Your task to perform on an android device: Search for the best way to make a resume. Image 0: 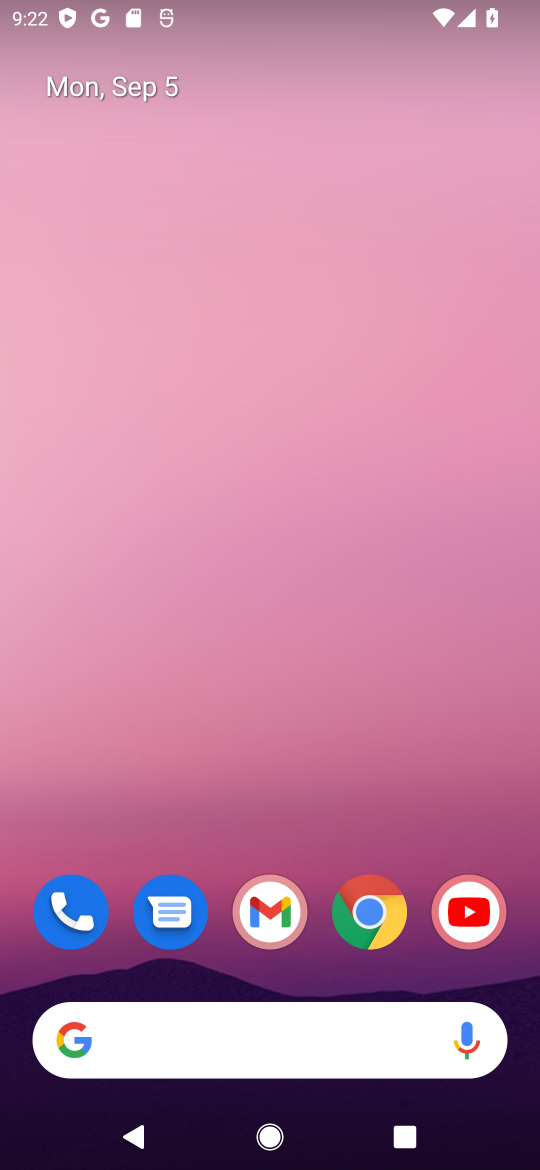
Step 0: click (378, 911)
Your task to perform on an android device: Search for the best way to make a resume. Image 1: 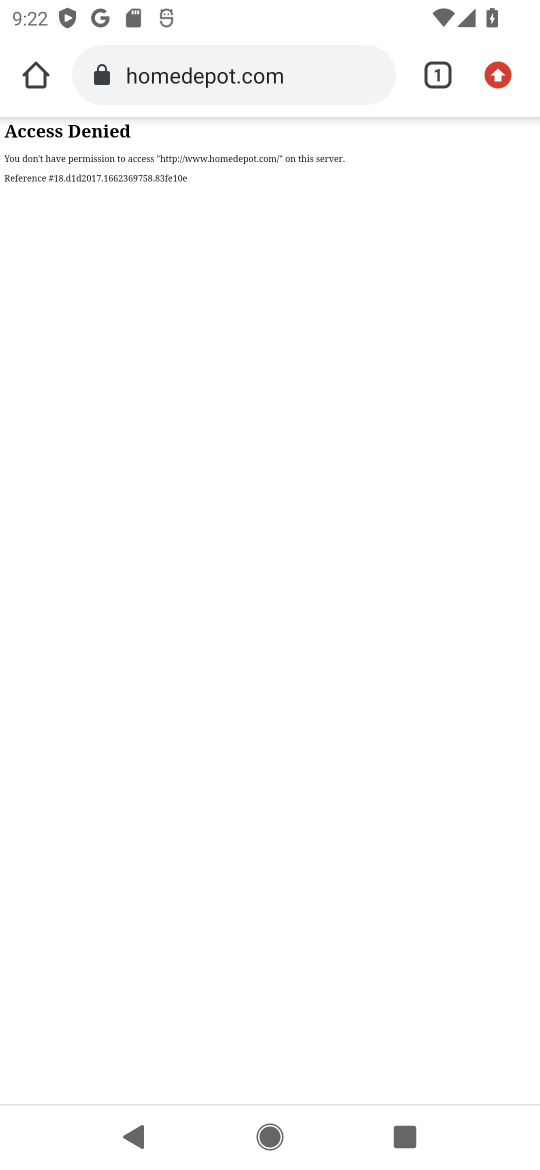
Step 1: click (280, 88)
Your task to perform on an android device: Search for the best way to make a resume. Image 2: 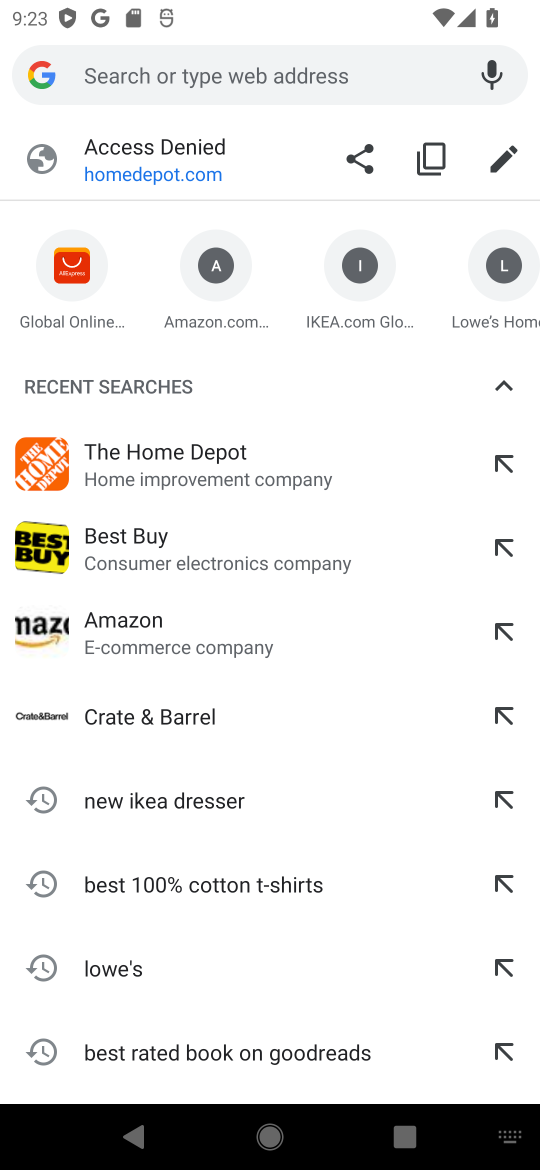
Step 2: type "best way to make resume"
Your task to perform on an android device: Search for the best way to make a resume. Image 3: 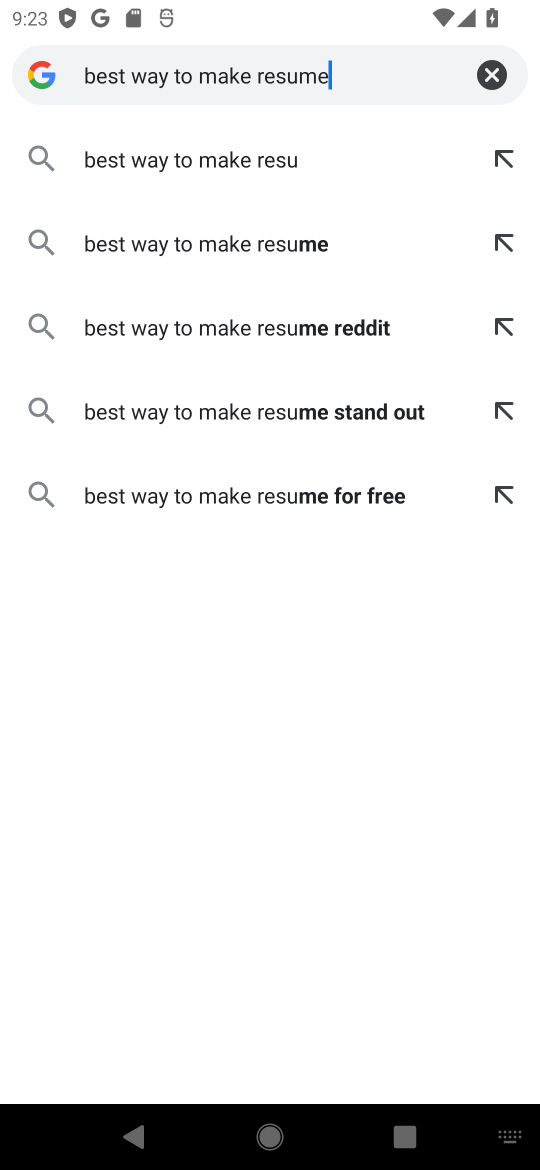
Step 3: press enter
Your task to perform on an android device: Search for the best way to make a resume. Image 4: 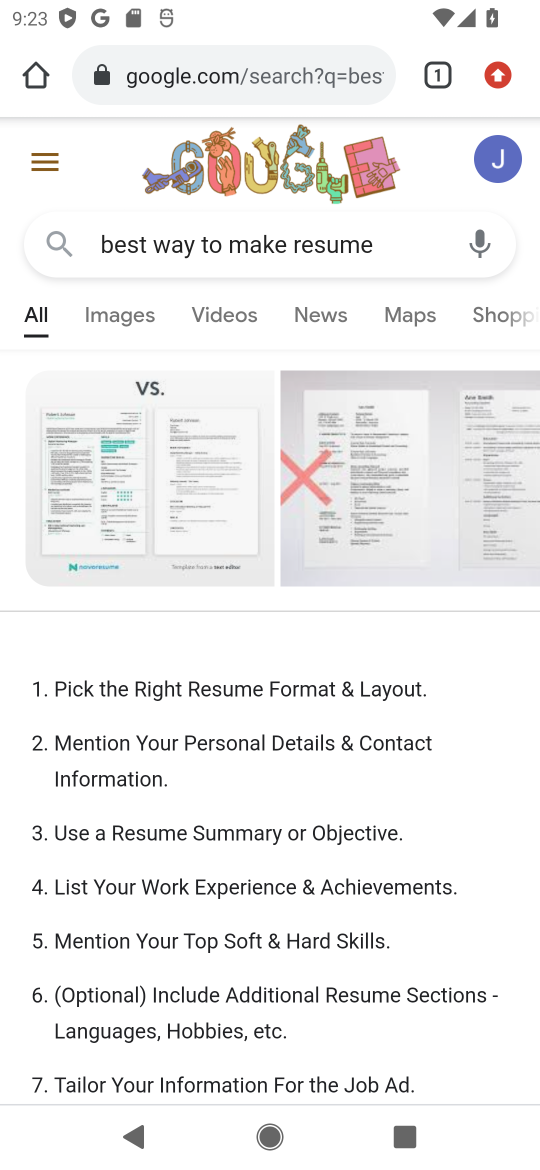
Step 4: drag from (418, 916) to (459, 563)
Your task to perform on an android device: Search for the best way to make a resume. Image 5: 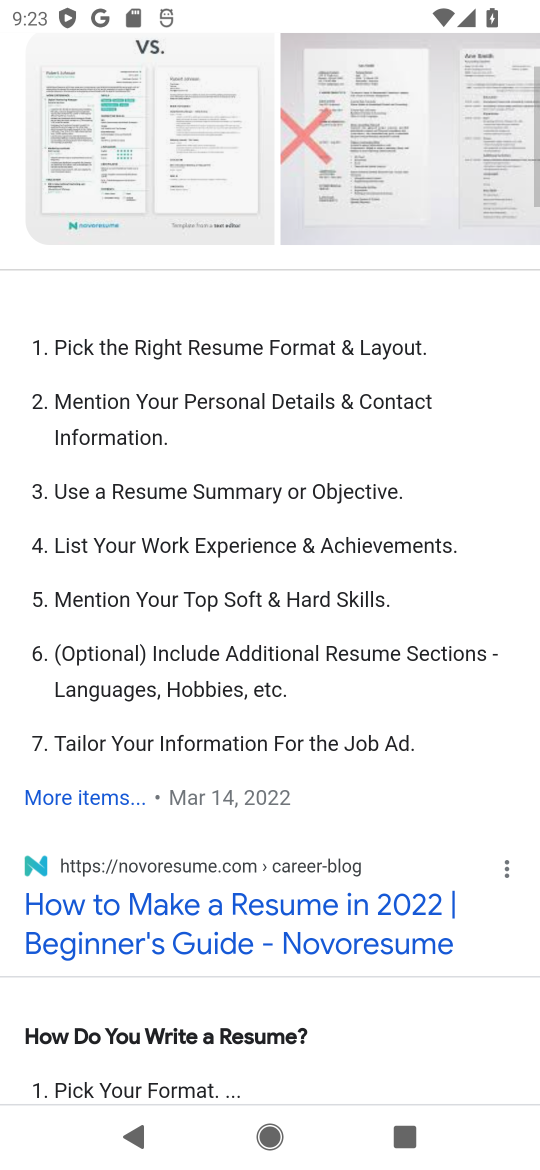
Step 5: drag from (305, 866) to (319, 627)
Your task to perform on an android device: Search for the best way to make a resume. Image 6: 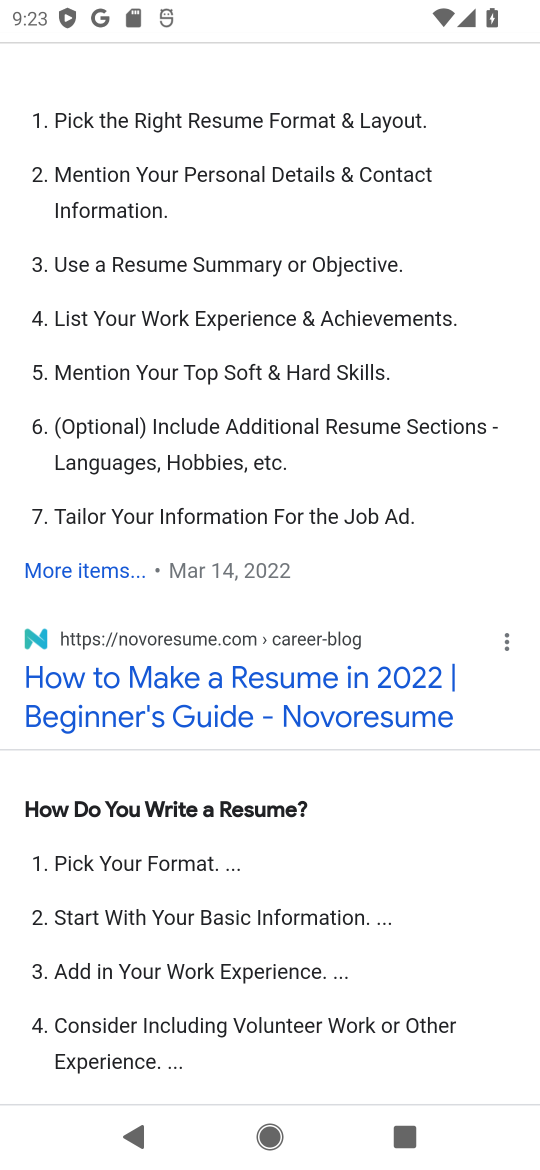
Step 6: click (398, 815)
Your task to perform on an android device: Search for the best way to make a resume. Image 7: 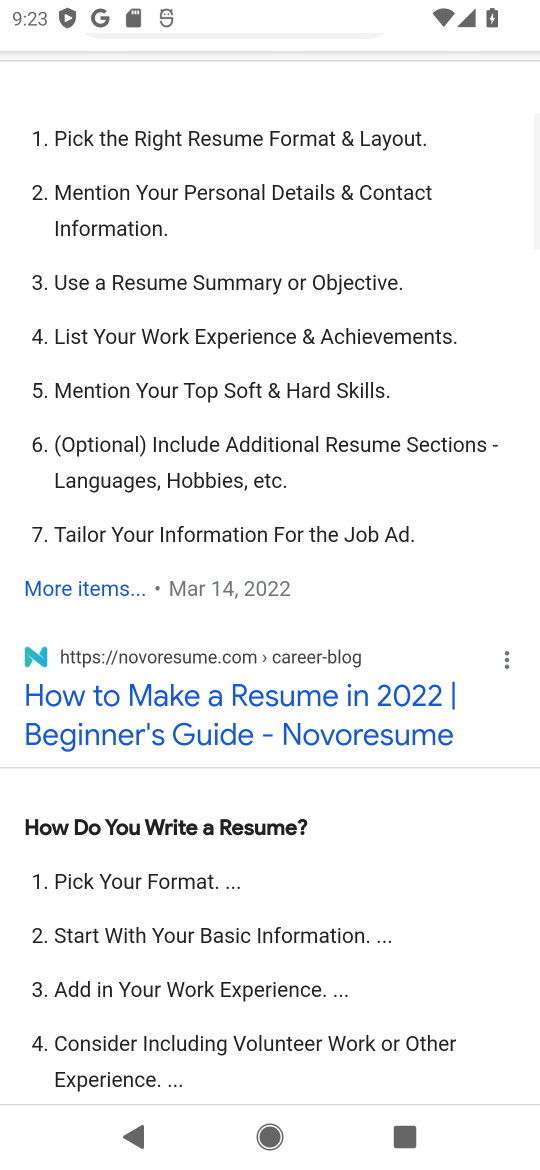
Step 7: drag from (313, 390) to (287, 711)
Your task to perform on an android device: Search for the best way to make a resume. Image 8: 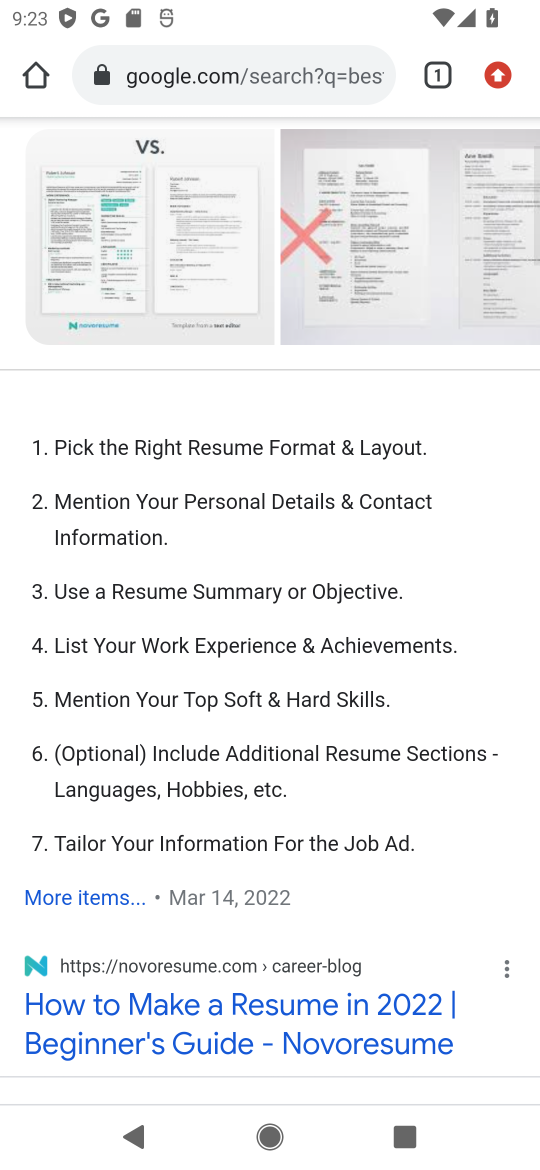
Step 8: drag from (279, 438) to (280, 641)
Your task to perform on an android device: Search for the best way to make a resume. Image 9: 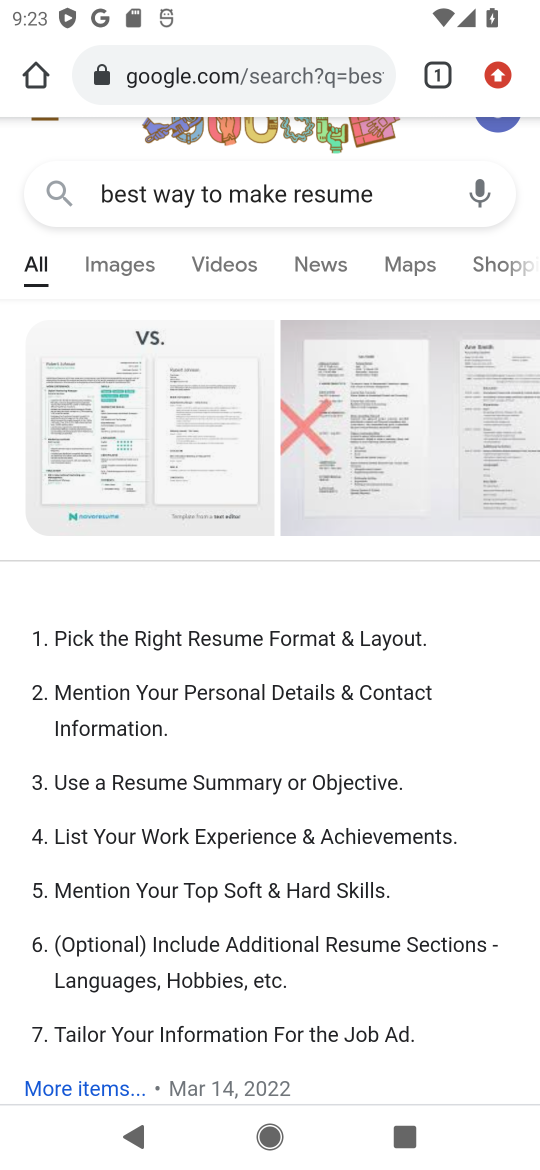
Step 9: drag from (361, 426) to (429, 206)
Your task to perform on an android device: Search for the best way to make a resume. Image 10: 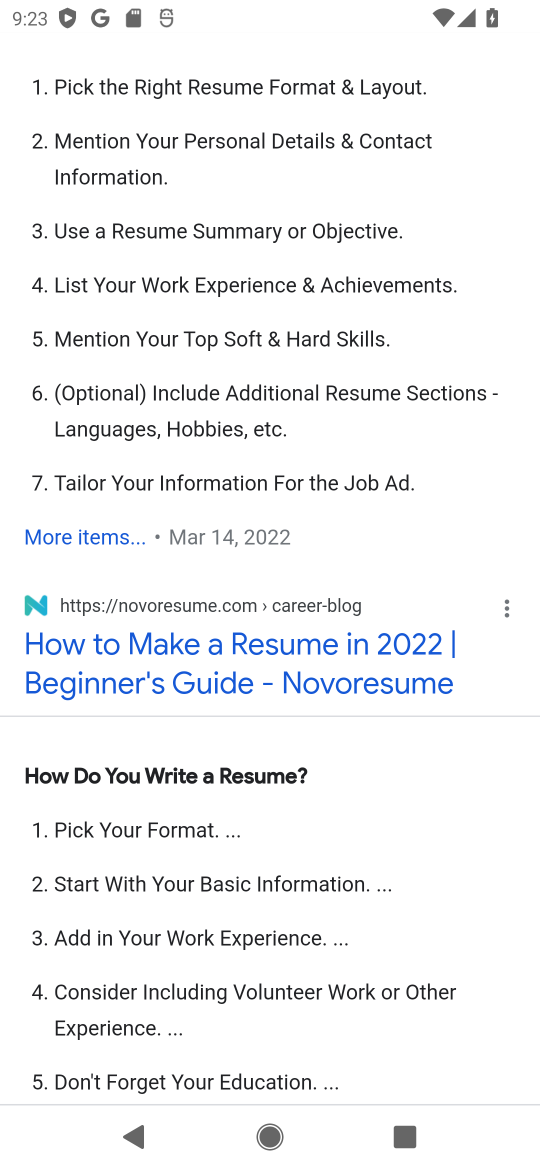
Step 10: drag from (320, 785) to (349, 406)
Your task to perform on an android device: Search for the best way to make a resume. Image 11: 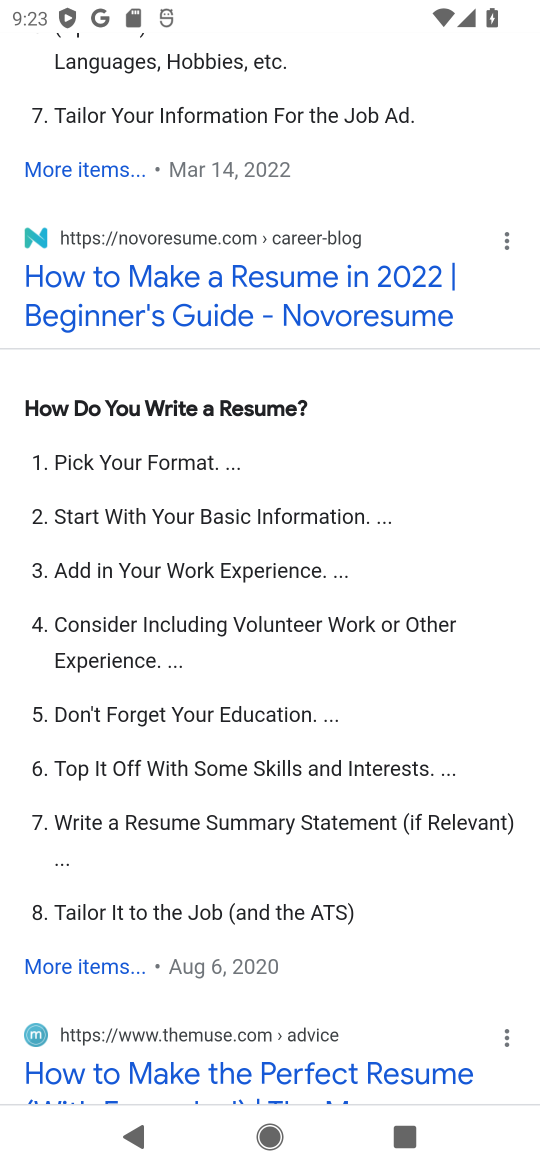
Step 11: drag from (301, 808) to (358, 455)
Your task to perform on an android device: Search for the best way to make a resume. Image 12: 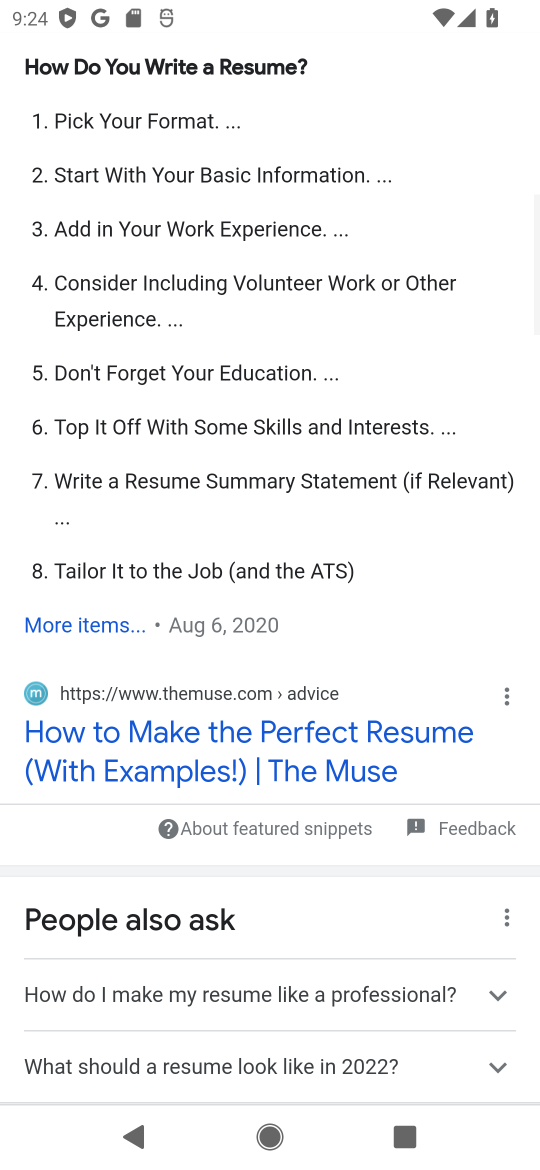
Step 12: drag from (316, 969) to (378, 504)
Your task to perform on an android device: Search for the best way to make a resume. Image 13: 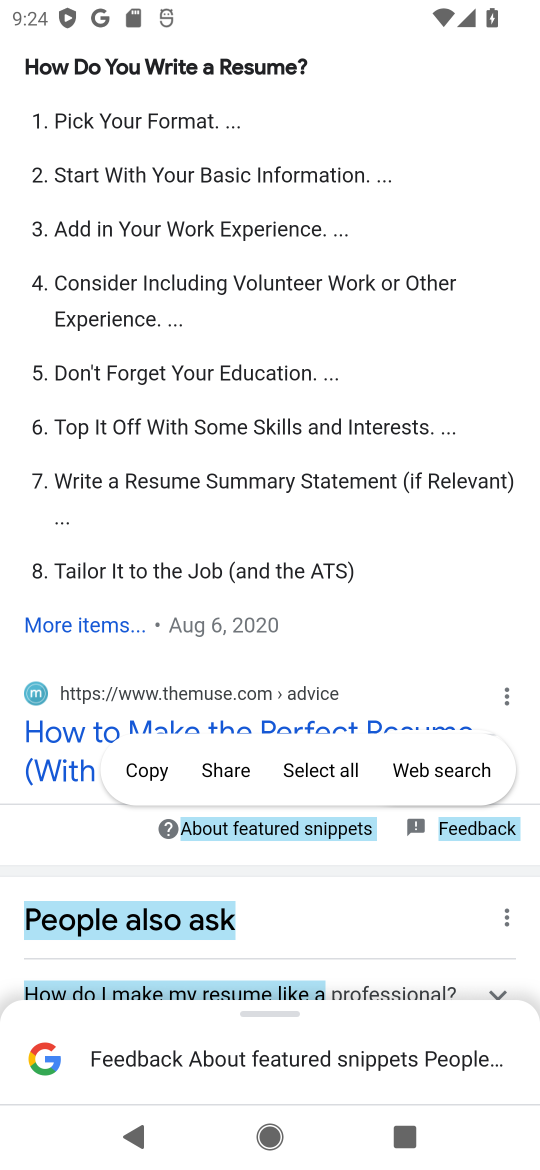
Step 13: click (369, 511)
Your task to perform on an android device: Search for the best way to make a resume. Image 14: 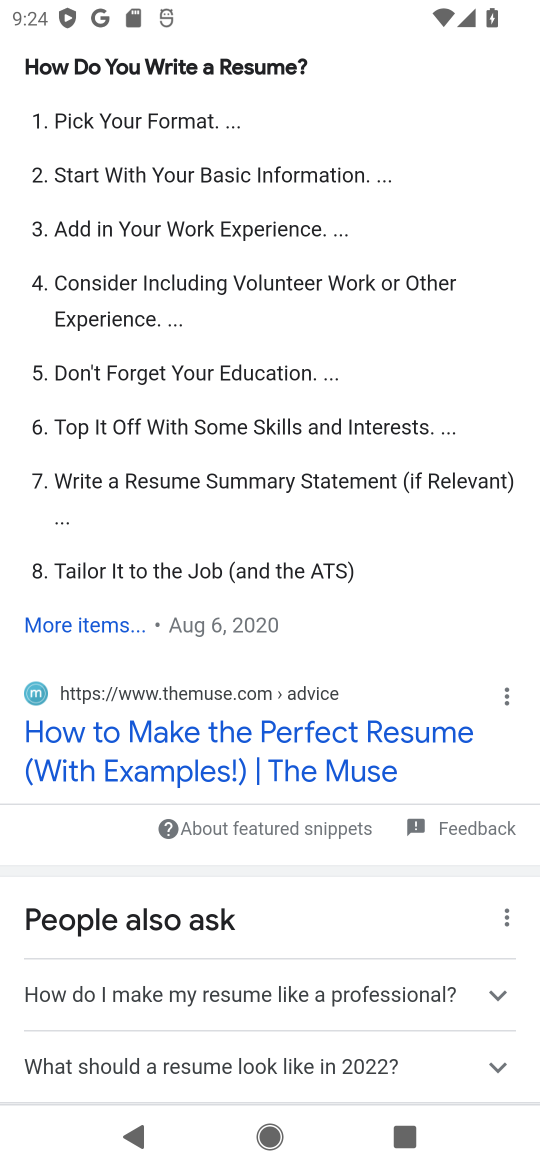
Step 14: task complete